Your task to perform on an android device: open app "Google Find My Device" Image 0: 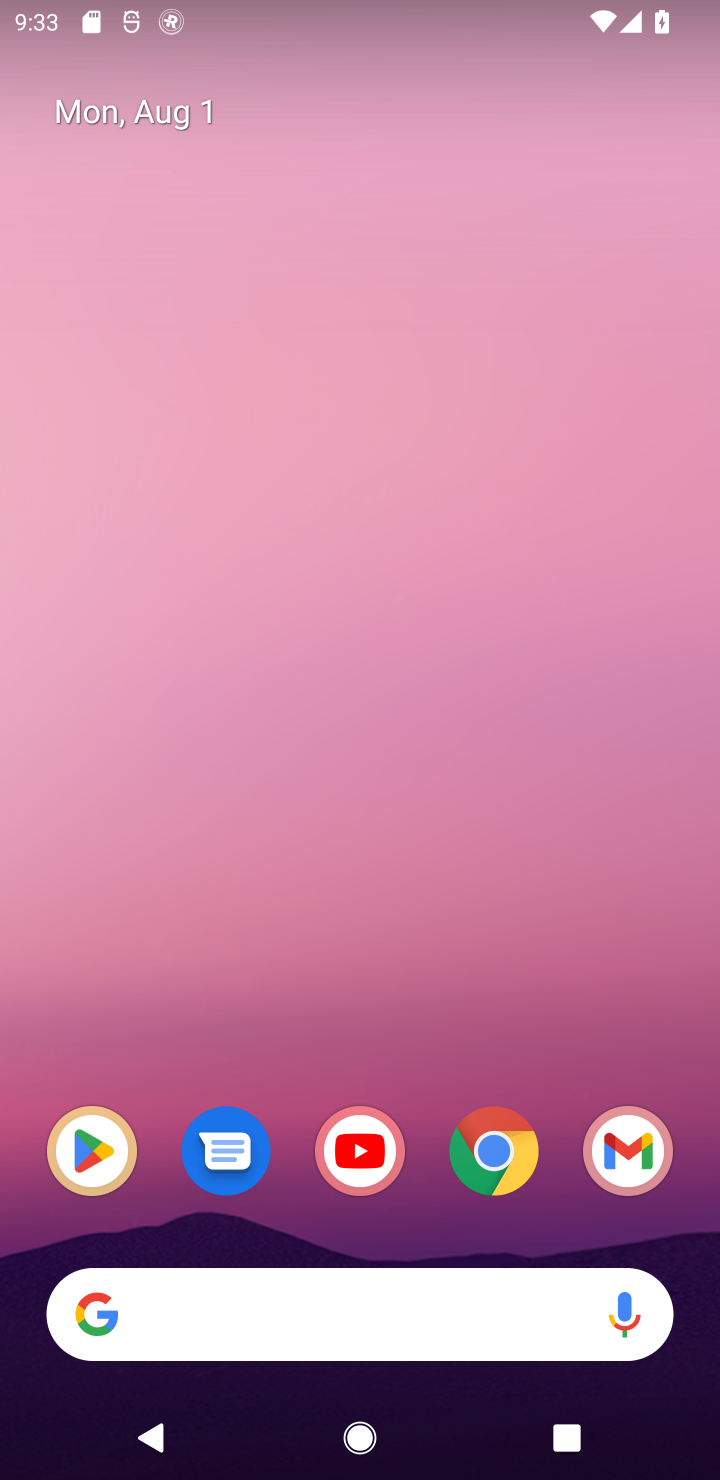
Step 0: click (80, 1159)
Your task to perform on an android device: open app "Google Find My Device" Image 1: 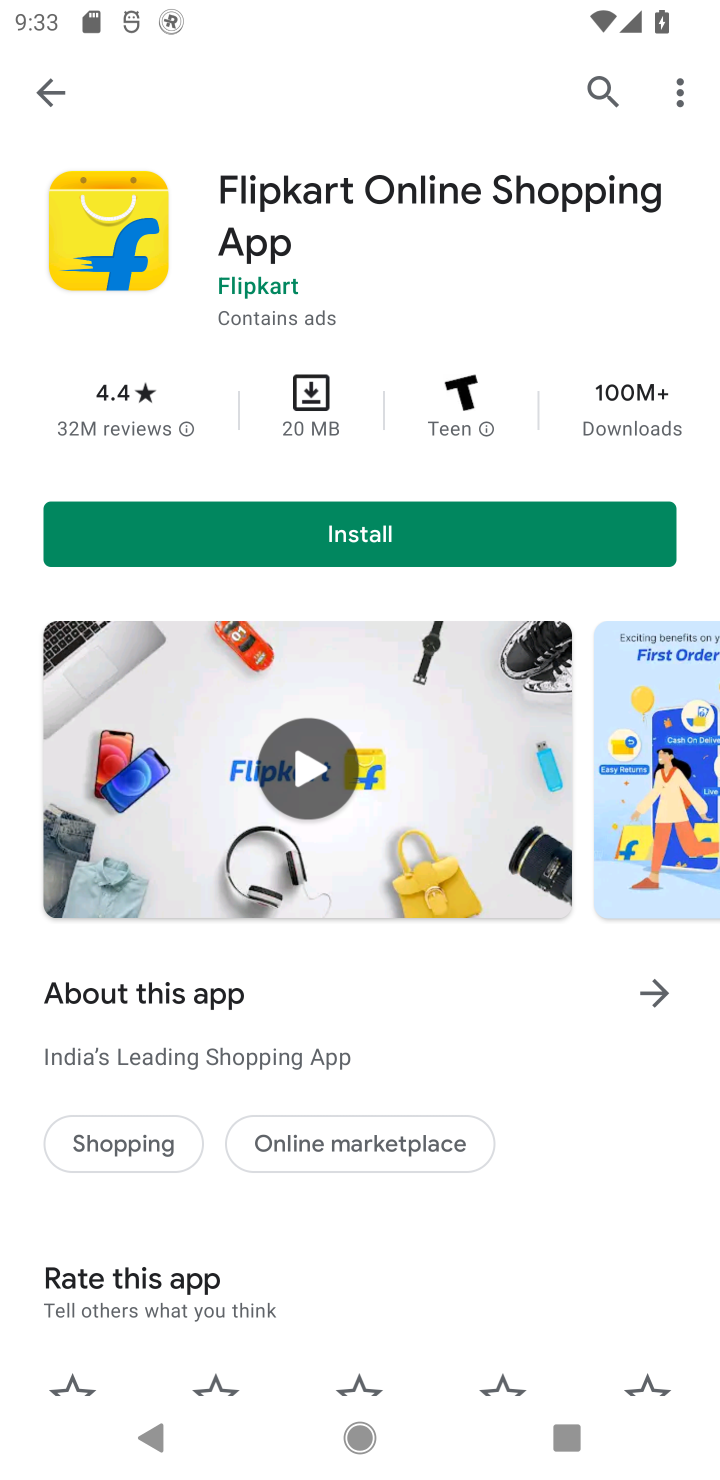
Step 1: click (655, 91)
Your task to perform on an android device: open app "Google Find My Device" Image 2: 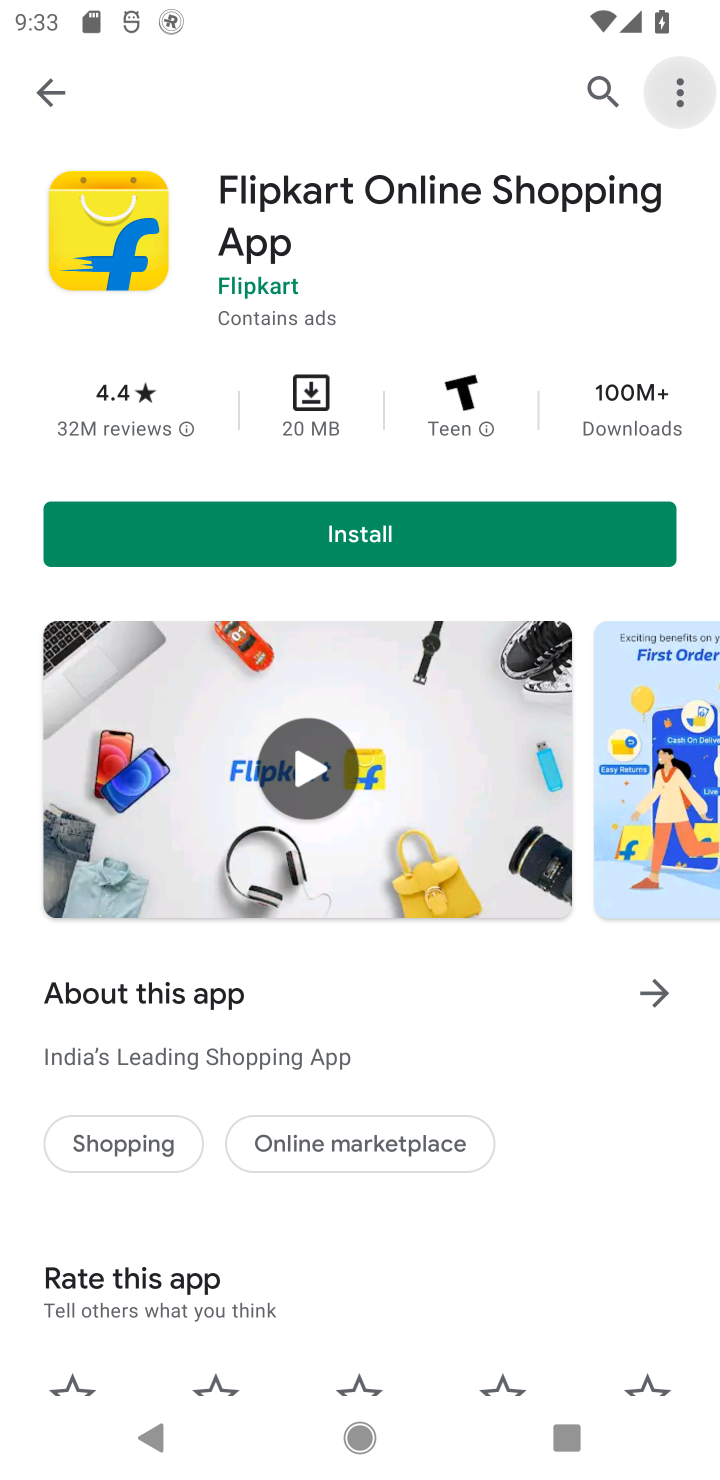
Step 2: click (629, 100)
Your task to perform on an android device: open app "Google Find My Device" Image 3: 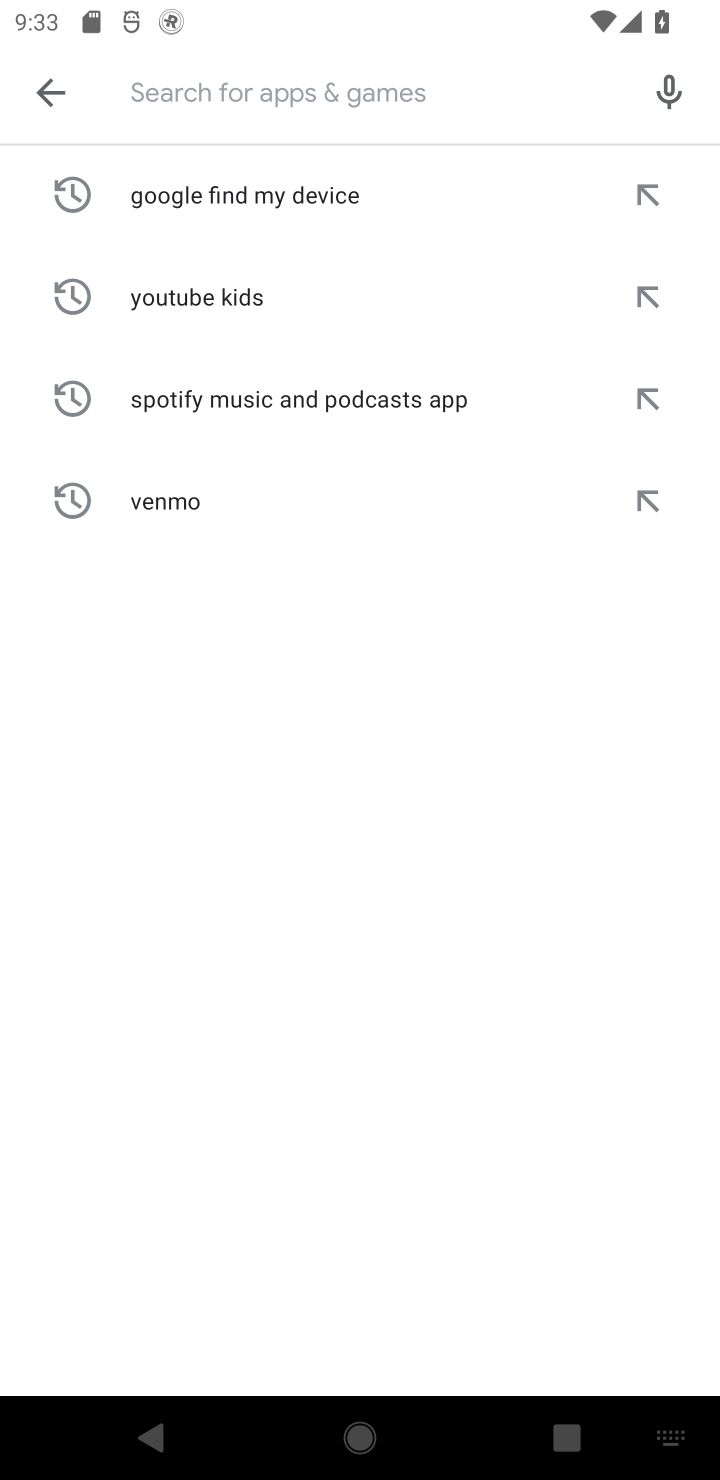
Step 3: click (599, 96)
Your task to perform on an android device: open app "Google Find My Device" Image 4: 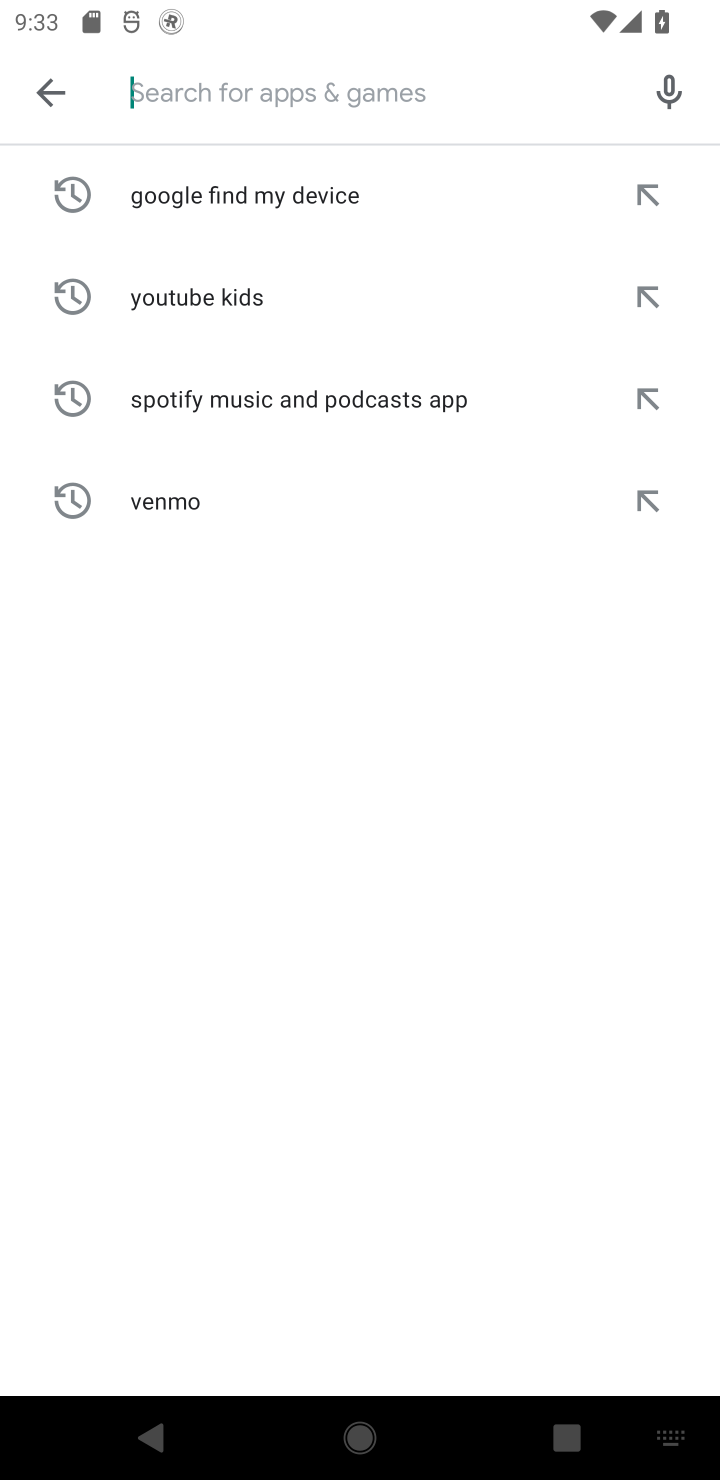
Step 4: type "Google Find My Device"
Your task to perform on an android device: open app "Google Find My Device" Image 5: 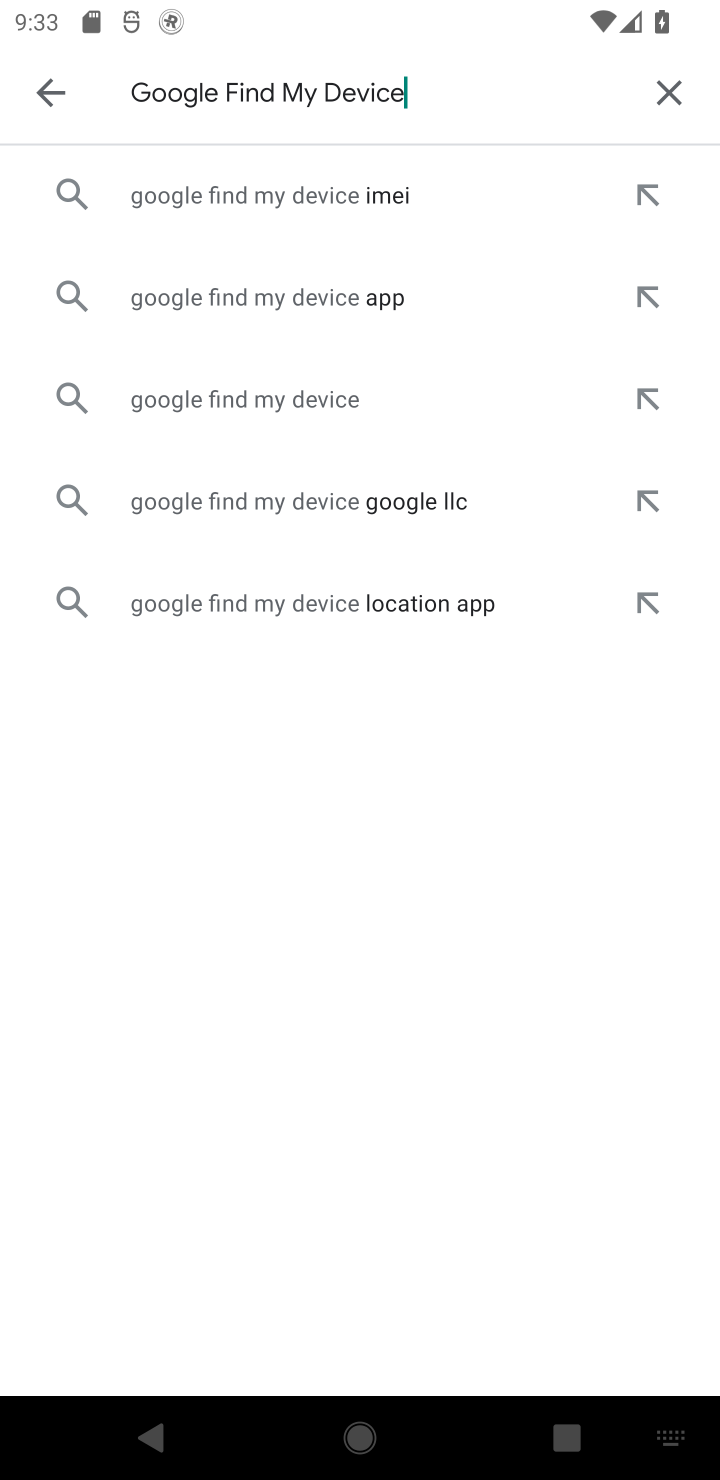
Step 5: click (392, 200)
Your task to perform on an android device: open app "Google Find My Device" Image 6: 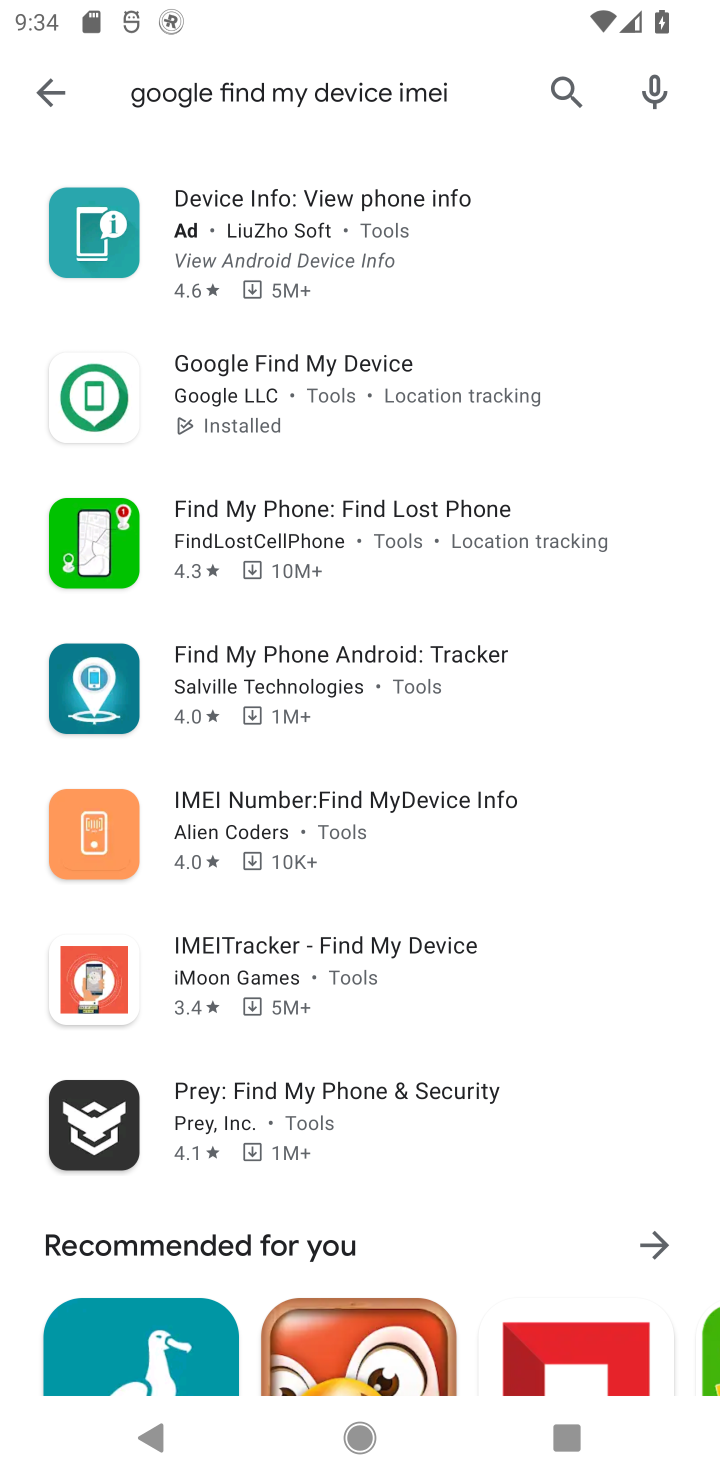
Step 6: click (485, 540)
Your task to perform on an android device: open app "Google Find My Device" Image 7: 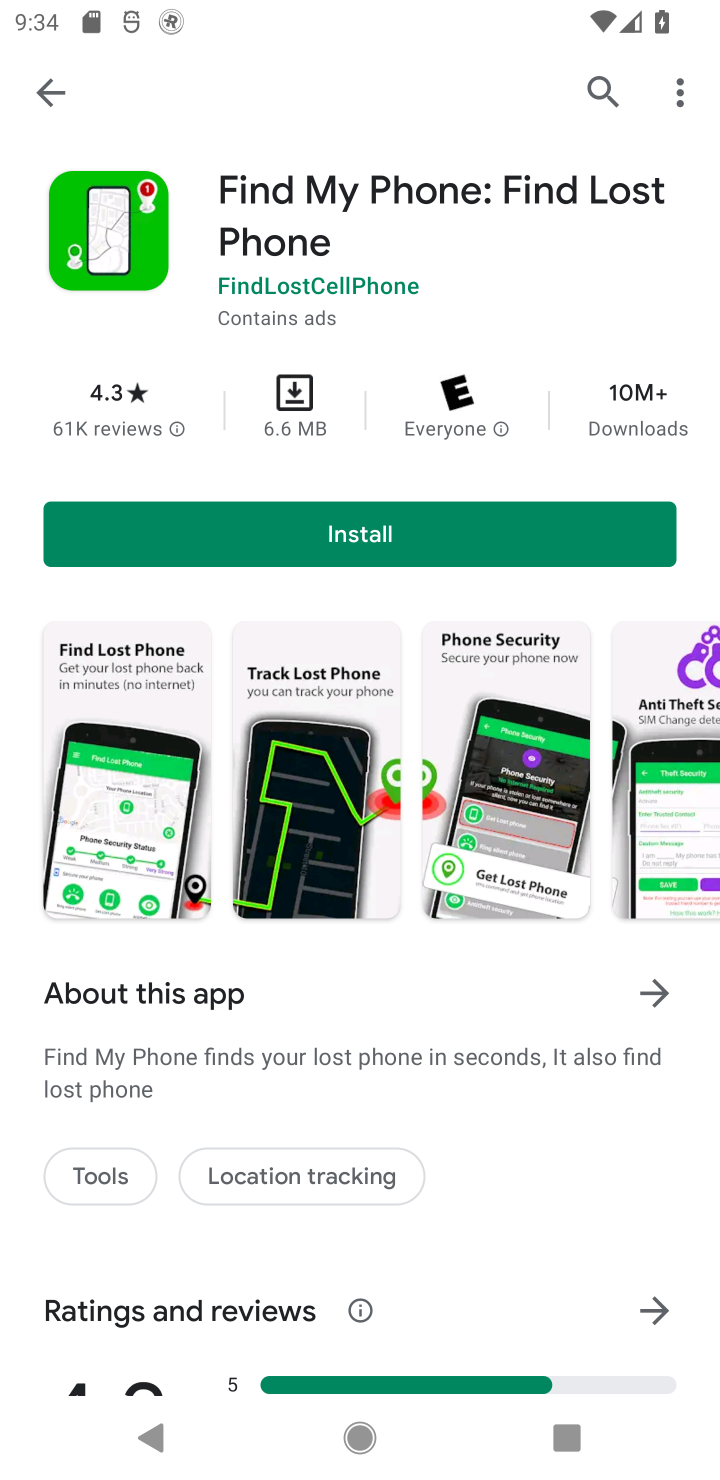
Step 7: task complete